Your task to perform on an android device: check battery use Image 0: 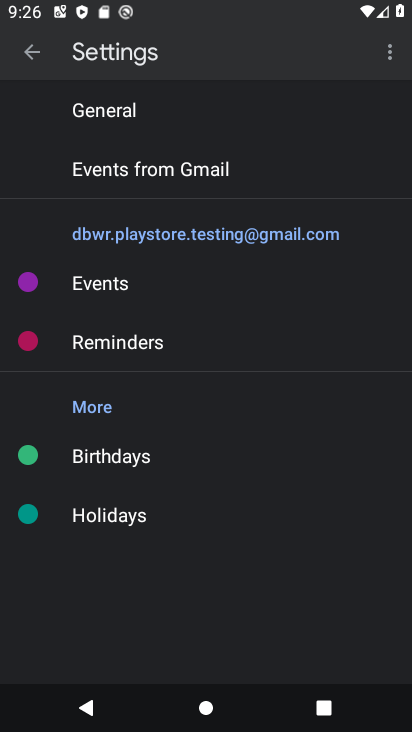
Step 0: task complete